Your task to perform on an android device: open a bookmark in the chrome app Image 0: 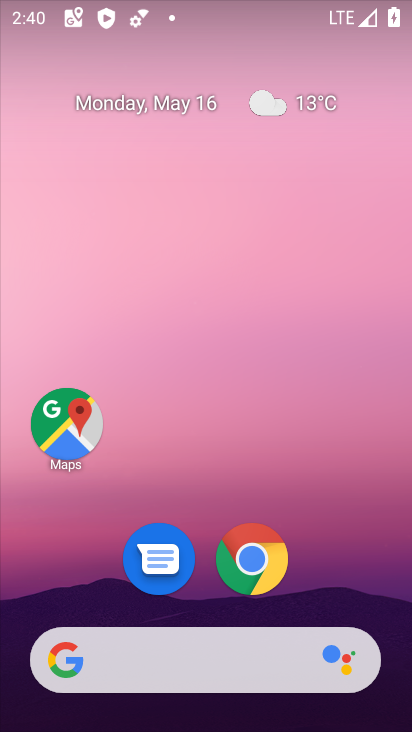
Step 0: click (257, 568)
Your task to perform on an android device: open a bookmark in the chrome app Image 1: 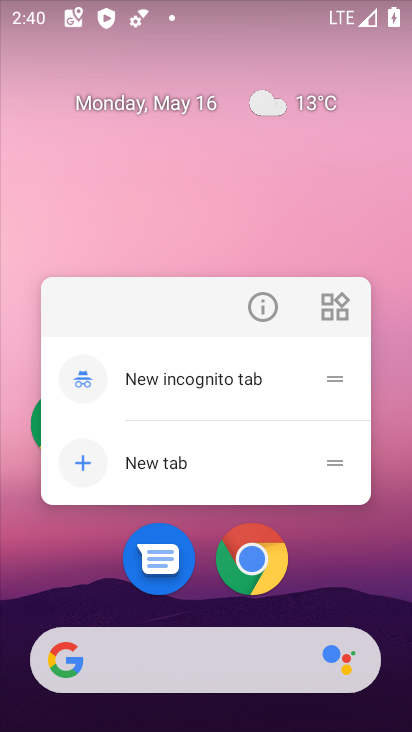
Step 1: click (235, 538)
Your task to perform on an android device: open a bookmark in the chrome app Image 2: 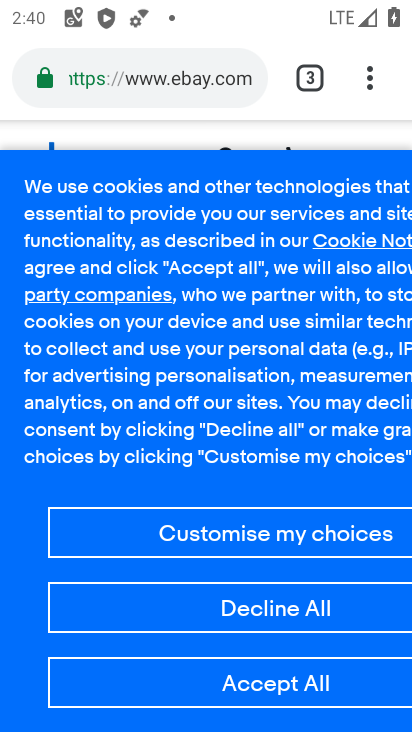
Step 2: drag from (371, 82) to (111, 297)
Your task to perform on an android device: open a bookmark in the chrome app Image 3: 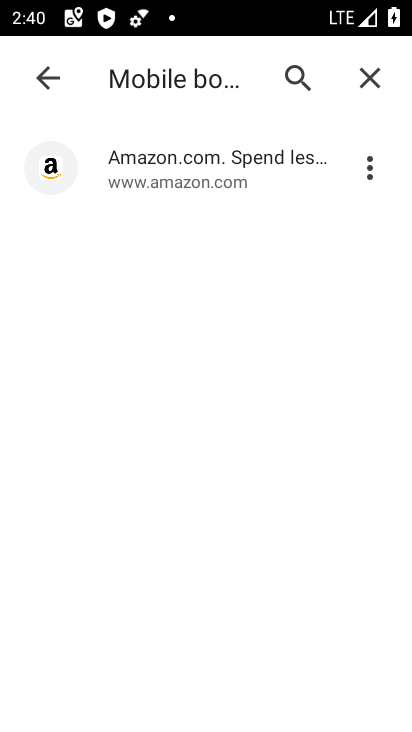
Step 3: click (210, 181)
Your task to perform on an android device: open a bookmark in the chrome app Image 4: 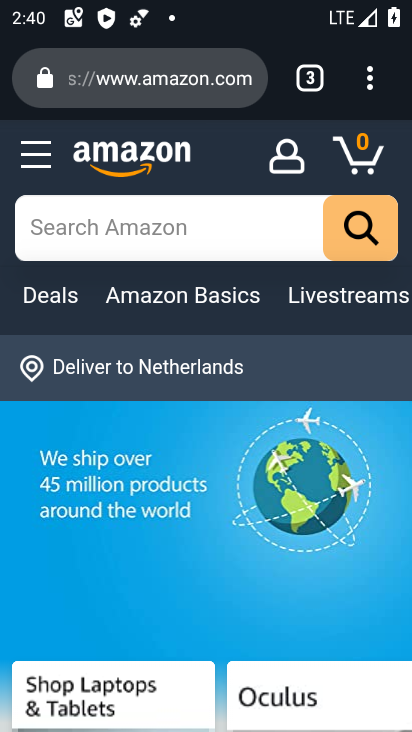
Step 4: task complete